Your task to perform on an android device: Go to ESPN.com Image 0: 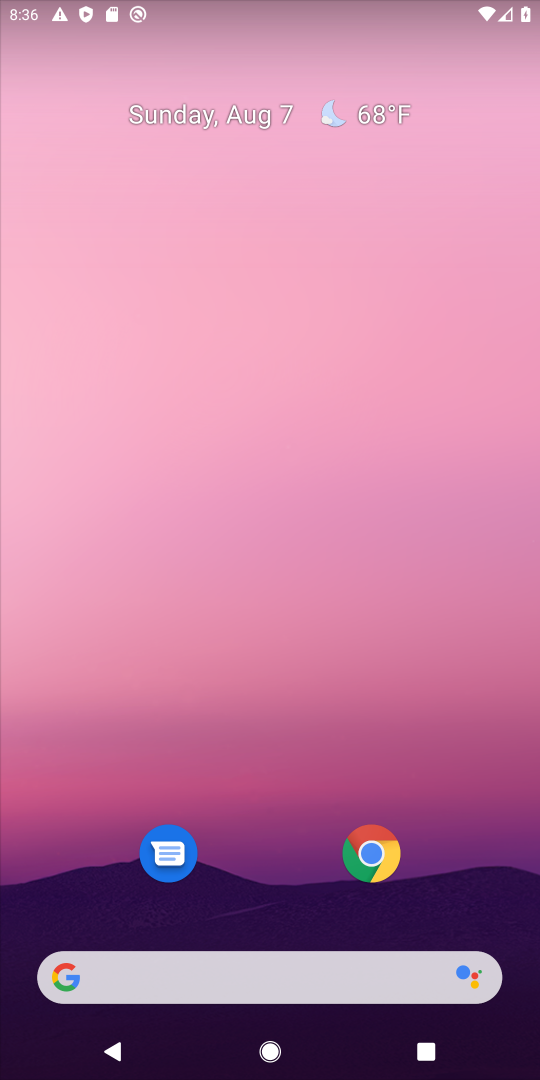
Step 0: drag from (346, 937) to (330, 353)
Your task to perform on an android device: Go to ESPN.com Image 1: 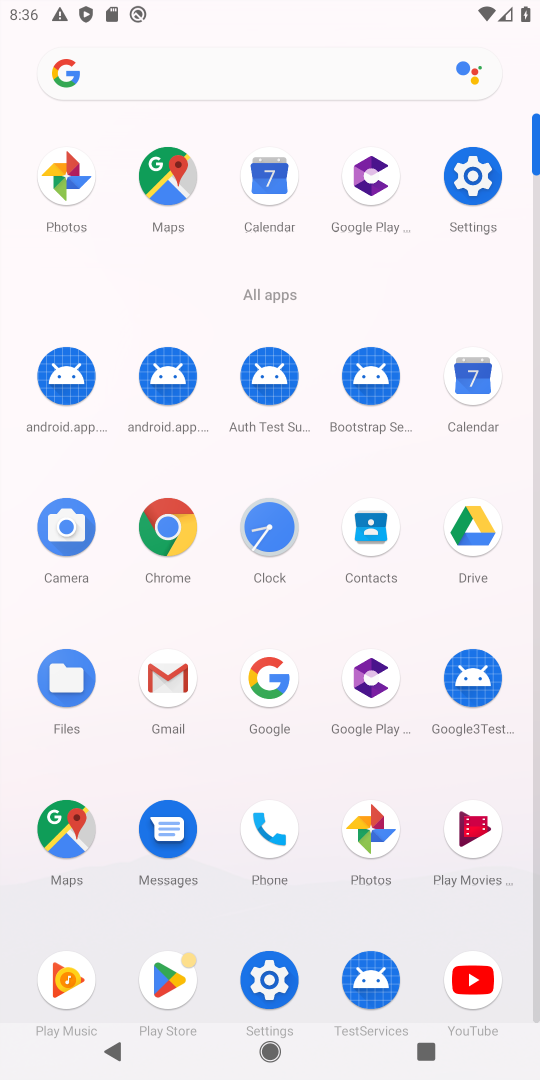
Step 1: click (169, 518)
Your task to perform on an android device: Go to ESPN.com Image 2: 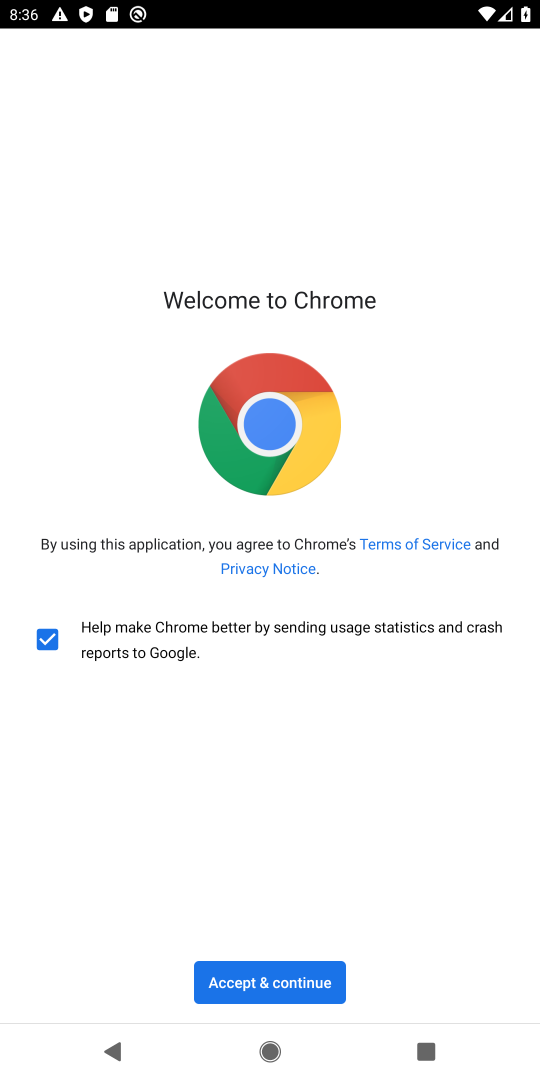
Step 2: click (275, 961)
Your task to perform on an android device: Go to ESPN.com Image 3: 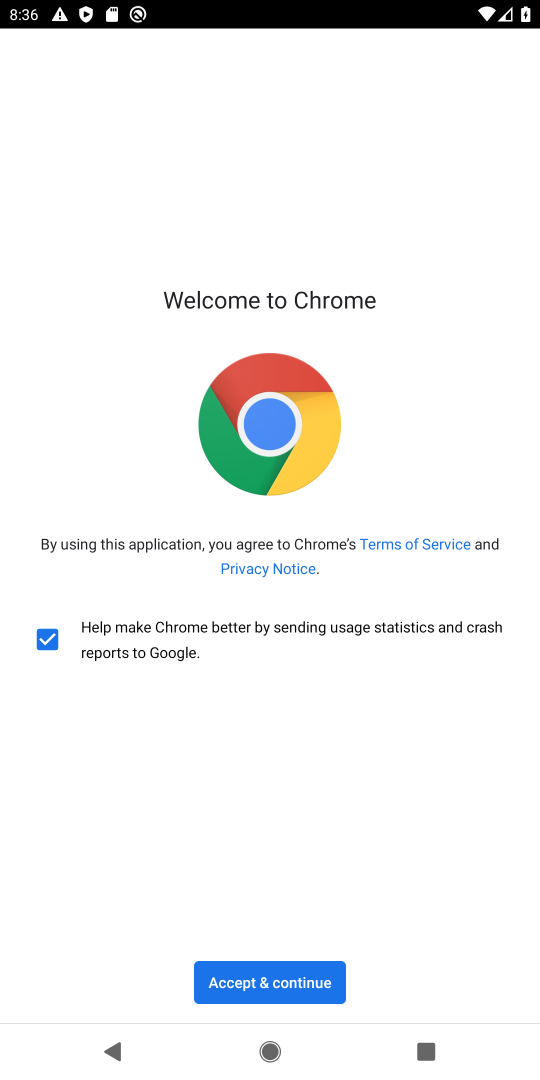
Step 3: click (286, 980)
Your task to perform on an android device: Go to ESPN.com Image 4: 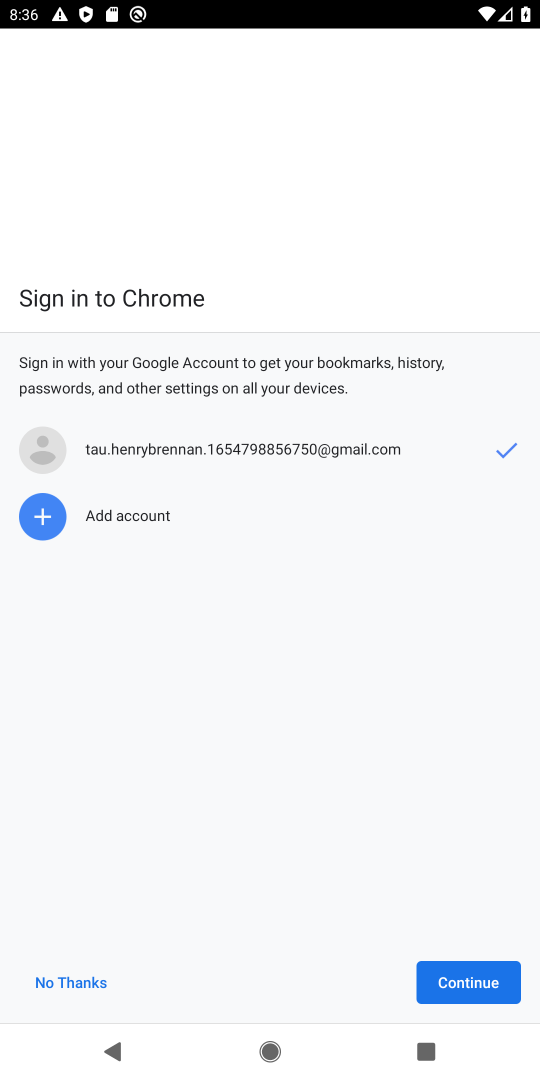
Step 4: click (506, 985)
Your task to perform on an android device: Go to ESPN.com Image 5: 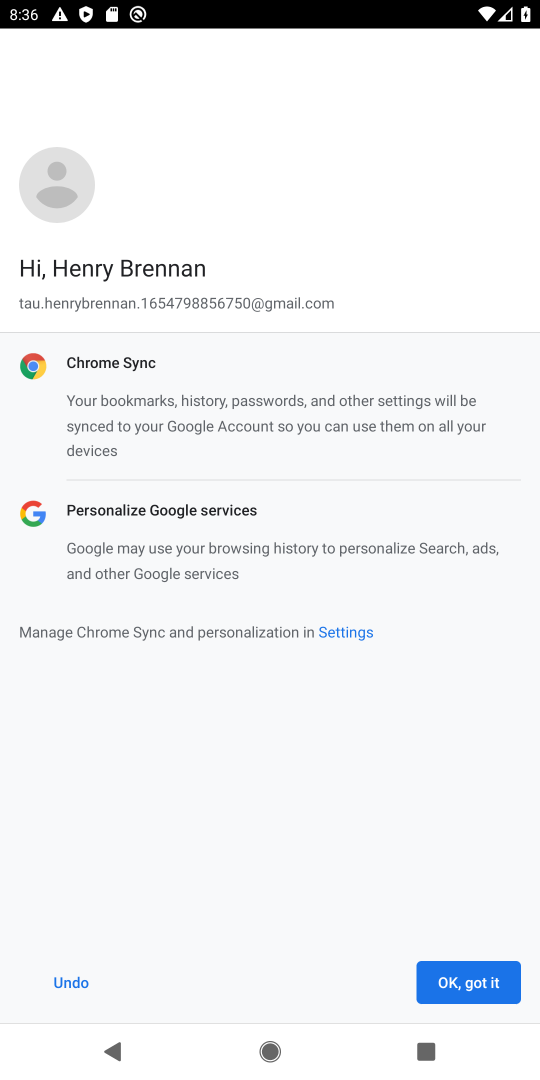
Step 5: click (506, 985)
Your task to perform on an android device: Go to ESPN.com Image 6: 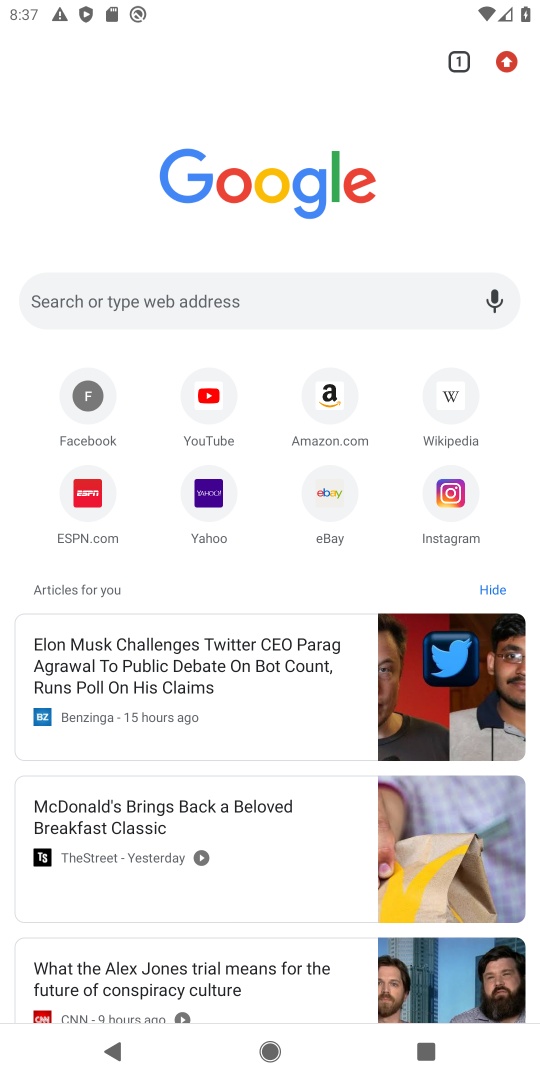
Step 6: click (69, 485)
Your task to perform on an android device: Go to ESPN.com Image 7: 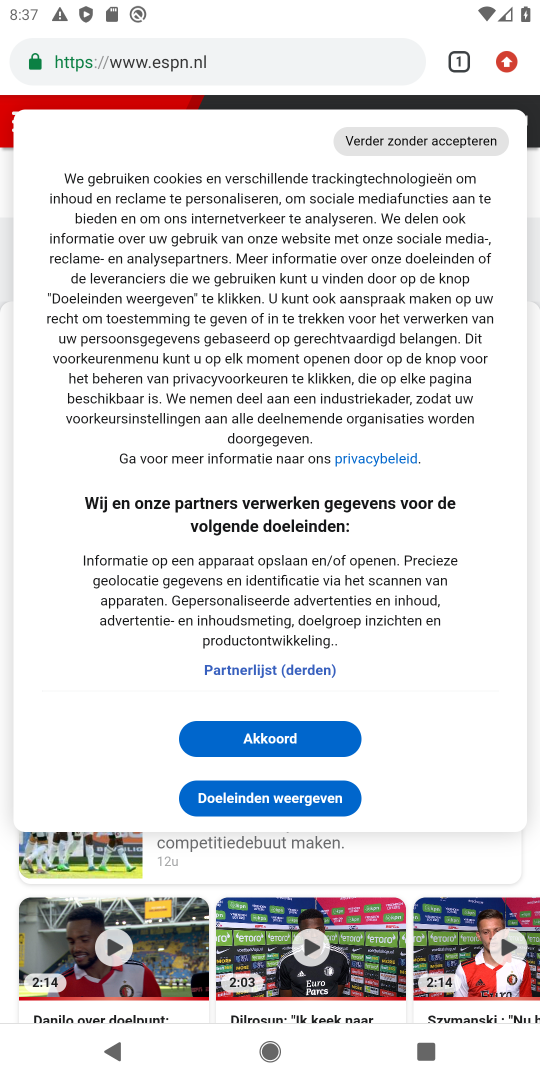
Step 7: task complete